Your task to perform on an android device: Open settings Image 0: 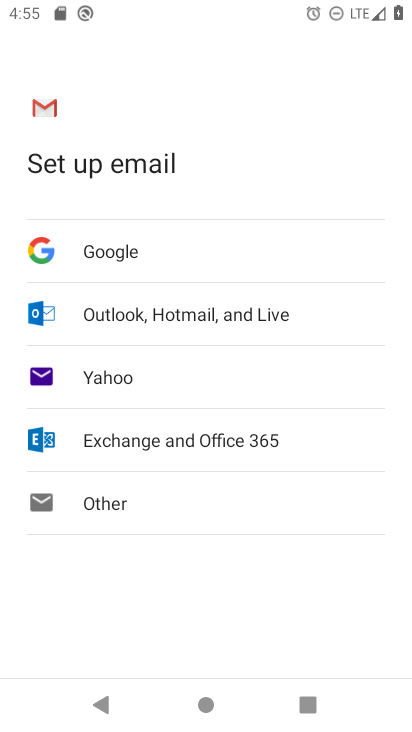
Step 0: press home button
Your task to perform on an android device: Open settings Image 1: 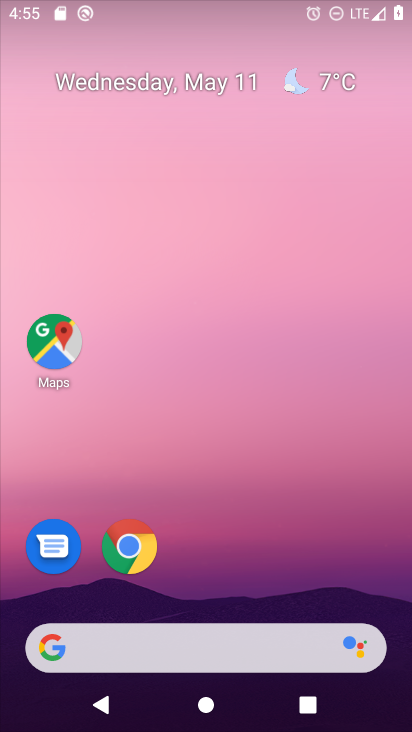
Step 1: drag from (238, 633) to (173, 77)
Your task to perform on an android device: Open settings Image 2: 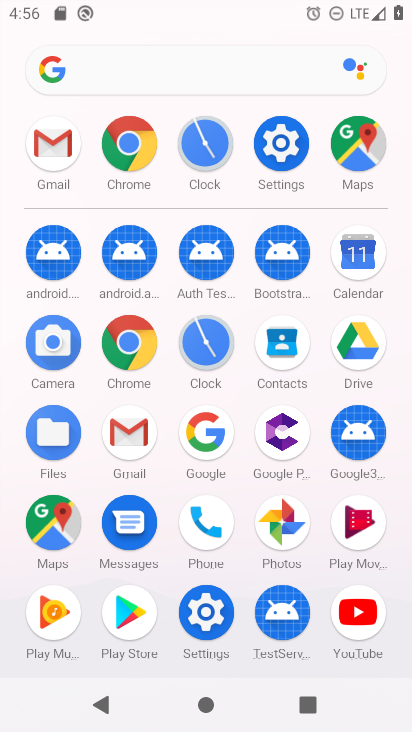
Step 2: click (297, 132)
Your task to perform on an android device: Open settings Image 3: 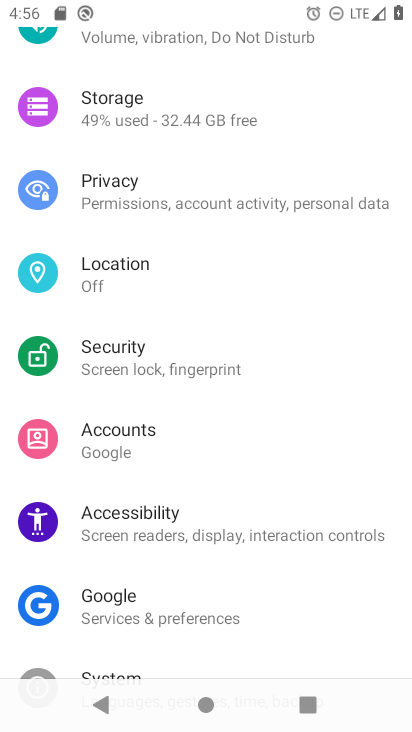
Step 3: task complete